Your task to perform on an android device: Open the calendar and show me this week's events? Image 0: 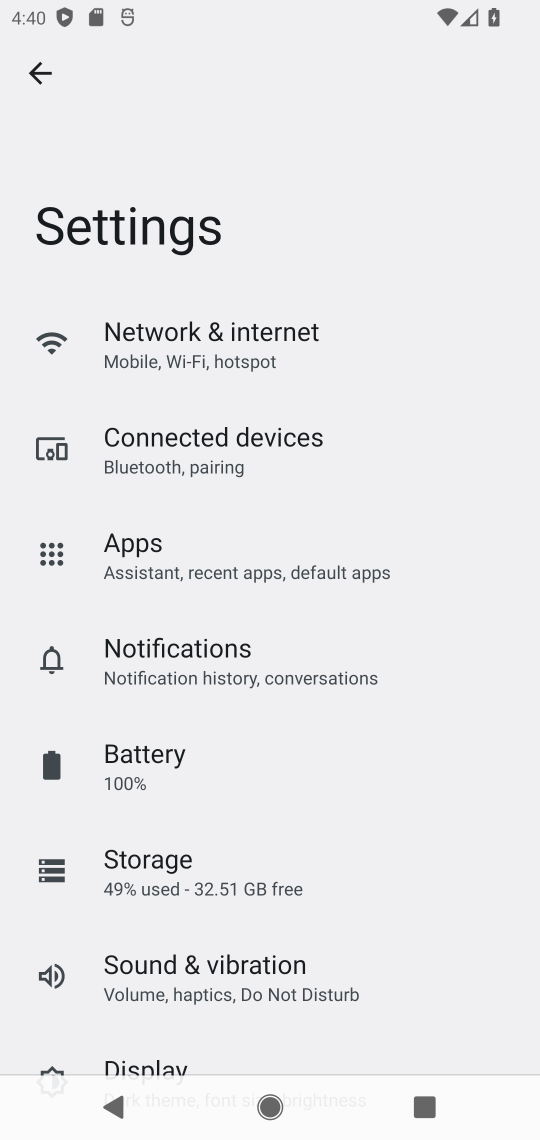
Step 0: press home button
Your task to perform on an android device: Open the calendar and show me this week's events? Image 1: 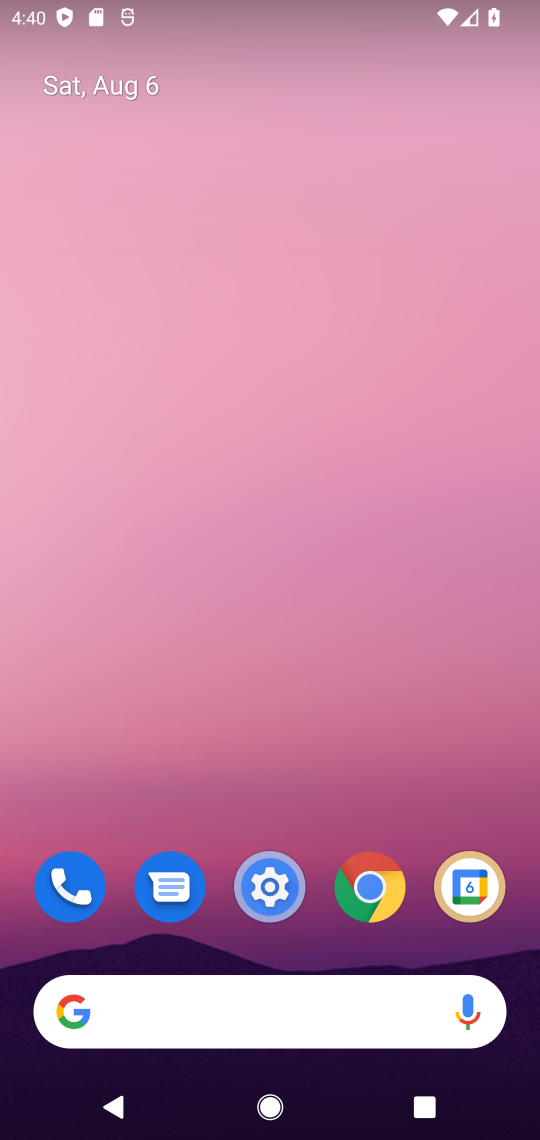
Step 1: drag from (282, 972) to (143, 391)
Your task to perform on an android device: Open the calendar and show me this week's events? Image 2: 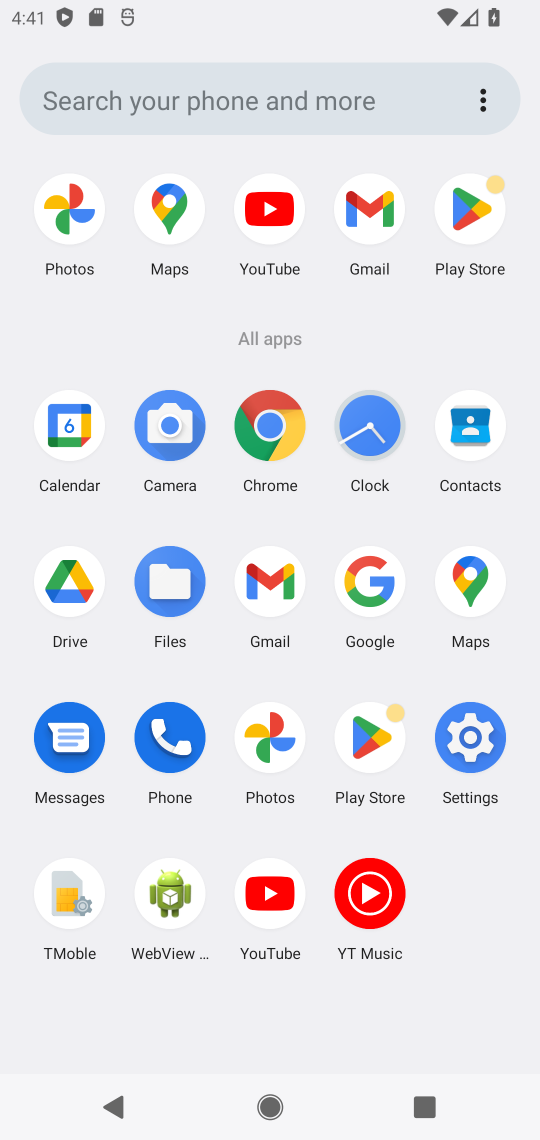
Step 2: click (71, 452)
Your task to perform on an android device: Open the calendar and show me this week's events? Image 3: 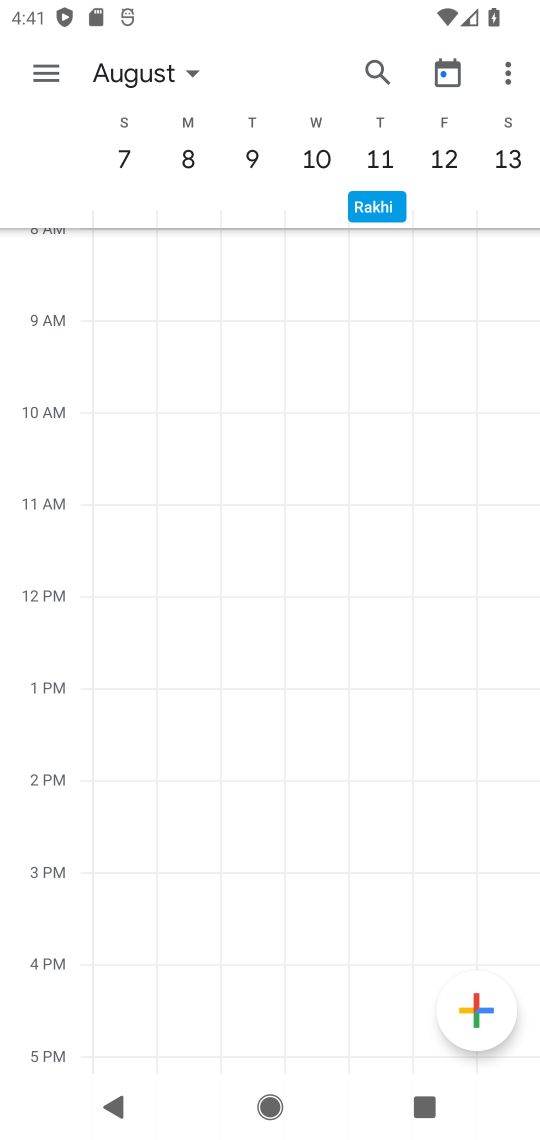
Step 3: click (105, 69)
Your task to perform on an android device: Open the calendar and show me this week's events? Image 4: 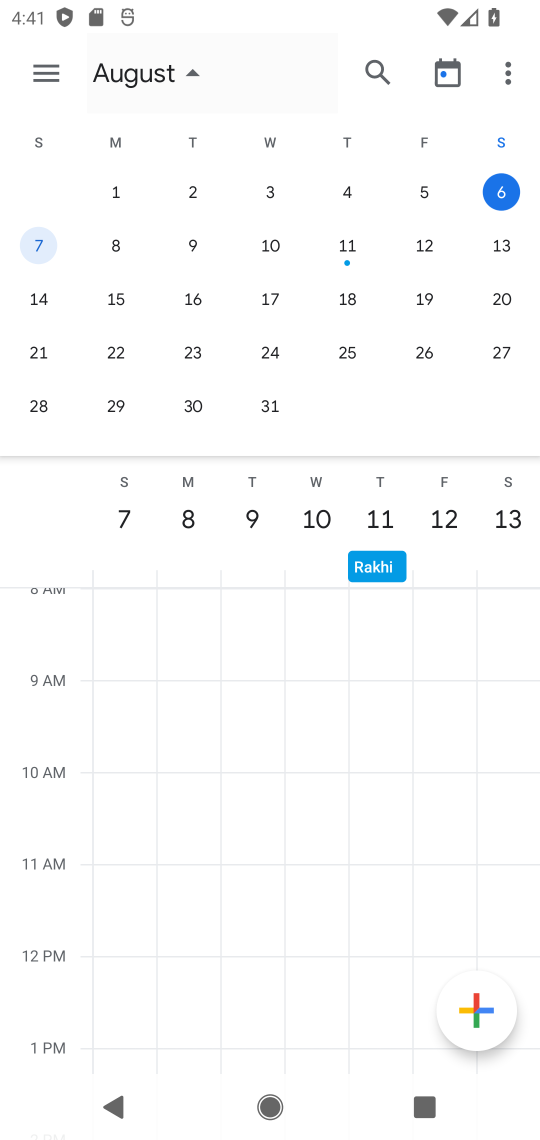
Step 4: click (39, 70)
Your task to perform on an android device: Open the calendar and show me this week's events? Image 5: 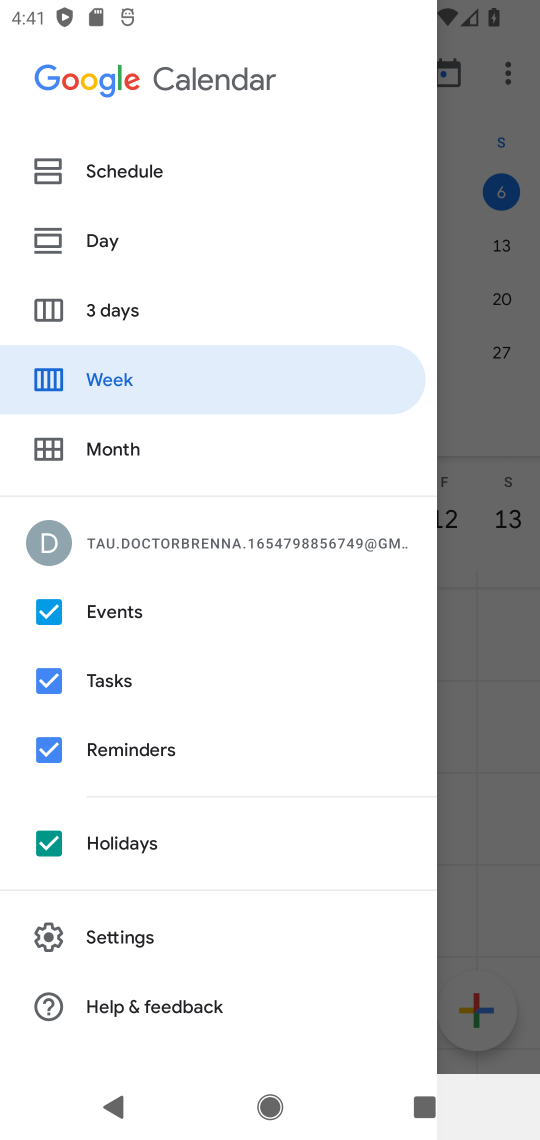
Step 5: click (166, 391)
Your task to perform on an android device: Open the calendar and show me this week's events? Image 6: 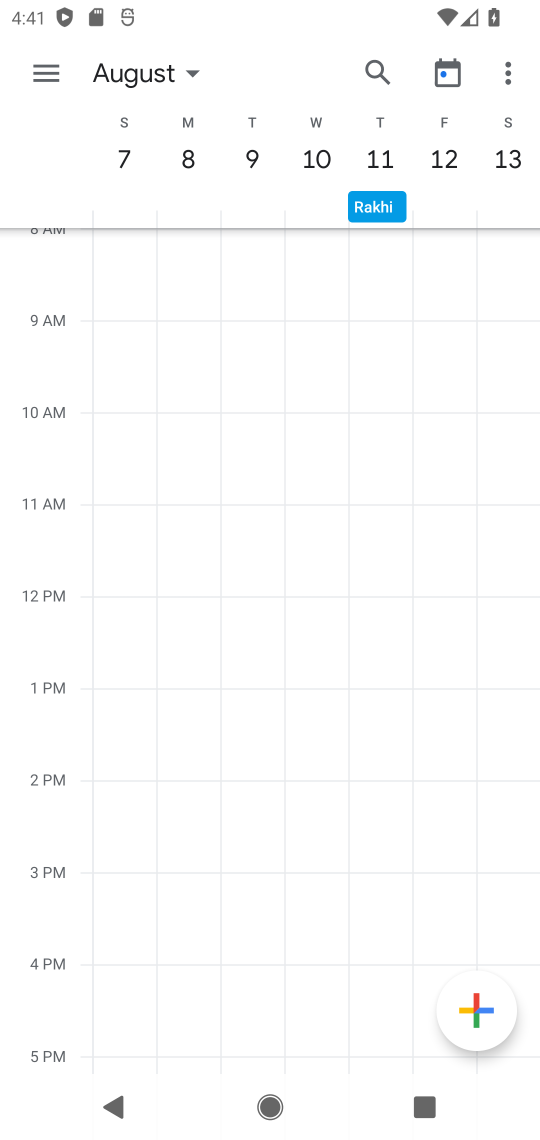
Step 6: task complete